Your task to perform on an android device: Open Google Maps Image 0: 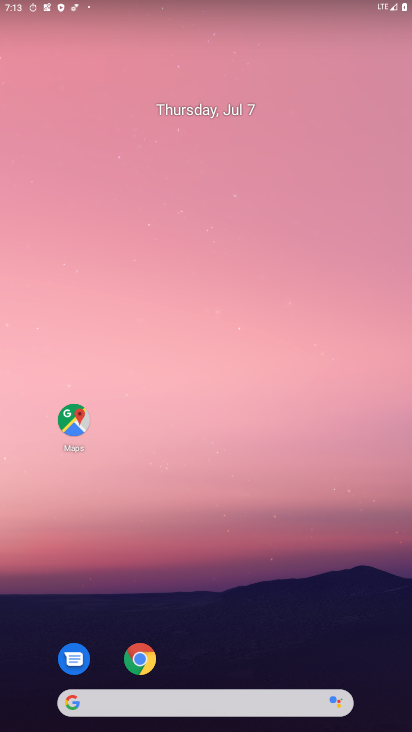
Step 0: drag from (361, 659) to (243, 25)
Your task to perform on an android device: Open Google Maps Image 1: 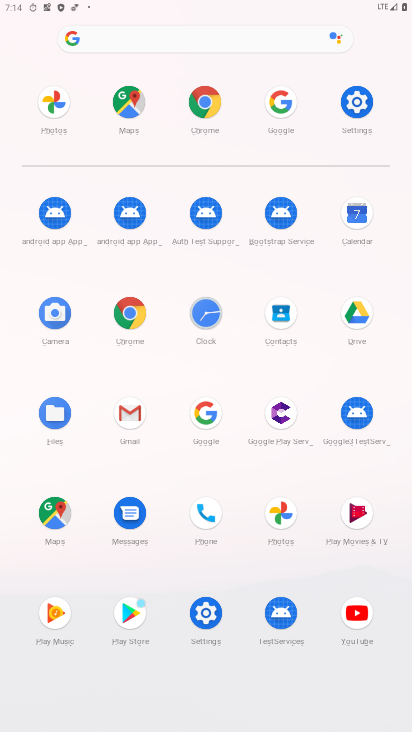
Step 1: click (54, 517)
Your task to perform on an android device: Open Google Maps Image 2: 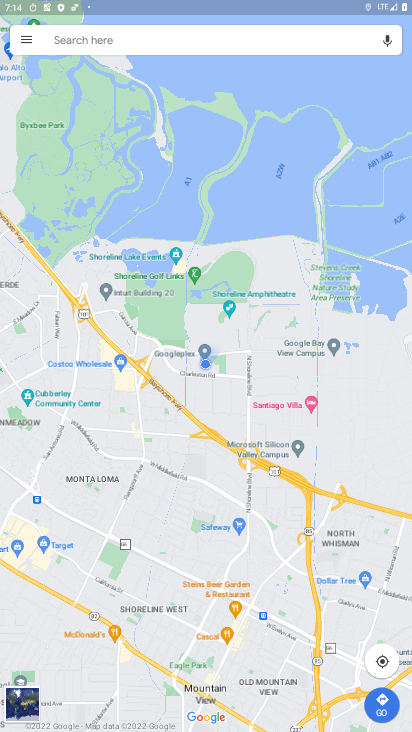
Step 2: task complete